Your task to perform on an android device: Open display settings Image 0: 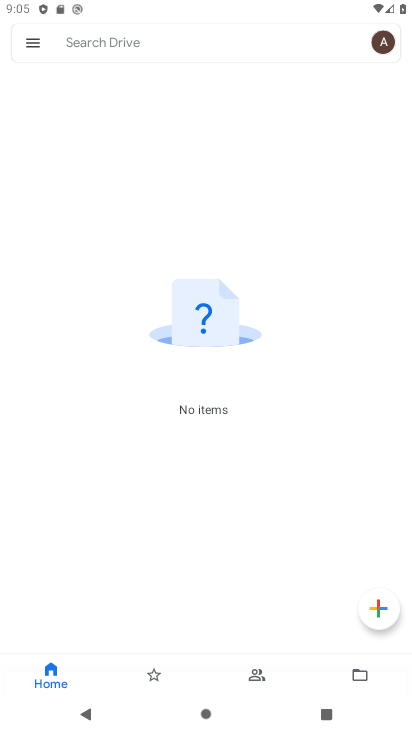
Step 0: press home button
Your task to perform on an android device: Open display settings Image 1: 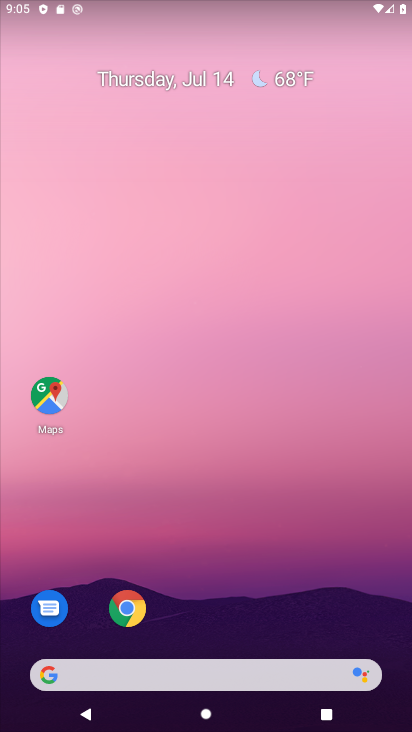
Step 1: drag from (195, 667) to (228, 78)
Your task to perform on an android device: Open display settings Image 2: 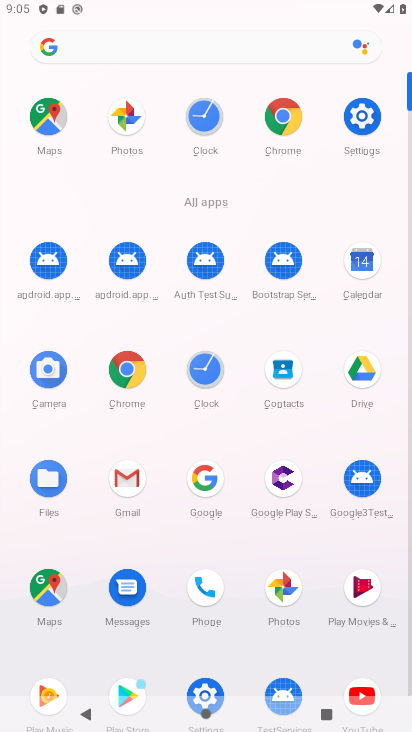
Step 2: click (353, 111)
Your task to perform on an android device: Open display settings Image 3: 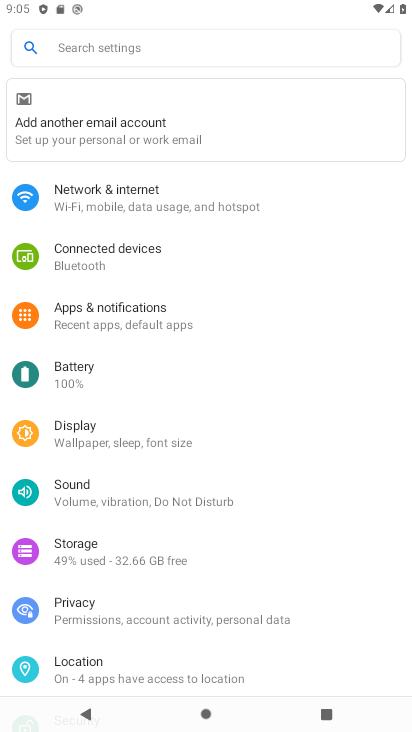
Step 3: click (87, 433)
Your task to perform on an android device: Open display settings Image 4: 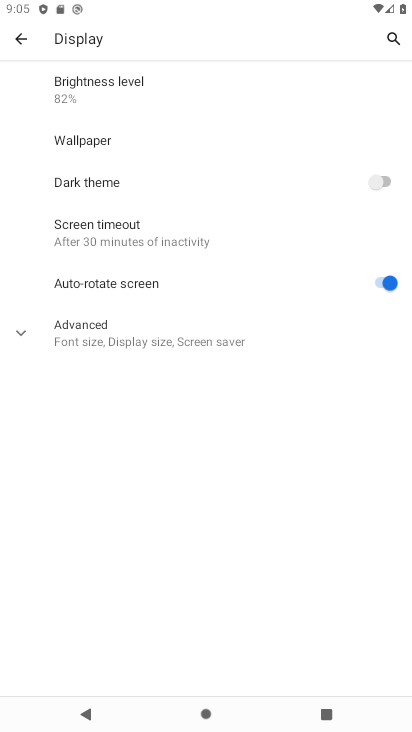
Step 4: task complete